Your task to perform on an android device: Open Google Maps and go to "Timeline" Image 0: 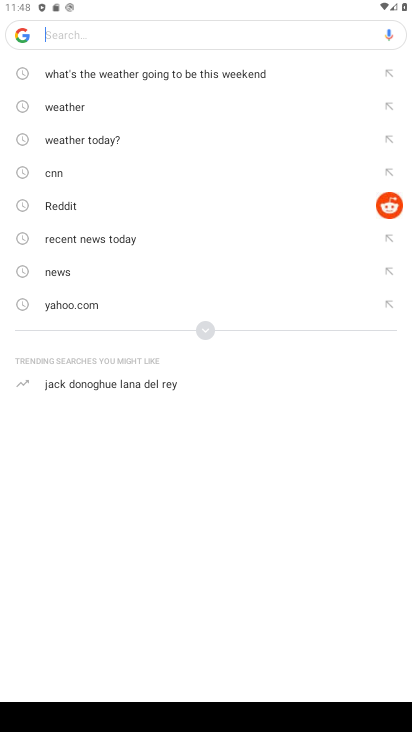
Step 0: press home button
Your task to perform on an android device: Open Google Maps and go to "Timeline" Image 1: 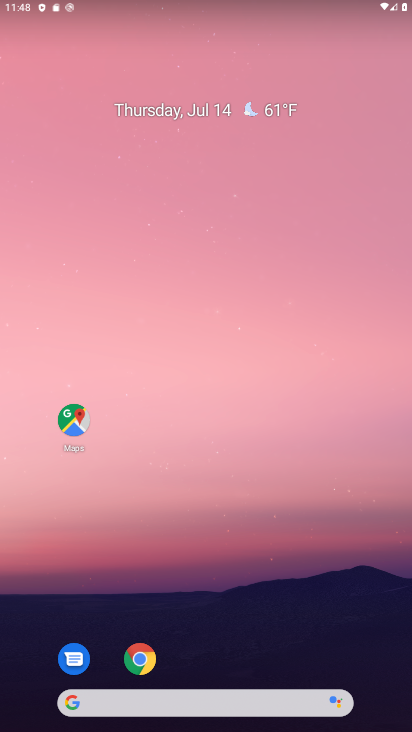
Step 1: click (66, 424)
Your task to perform on an android device: Open Google Maps and go to "Timeline" Image 2: 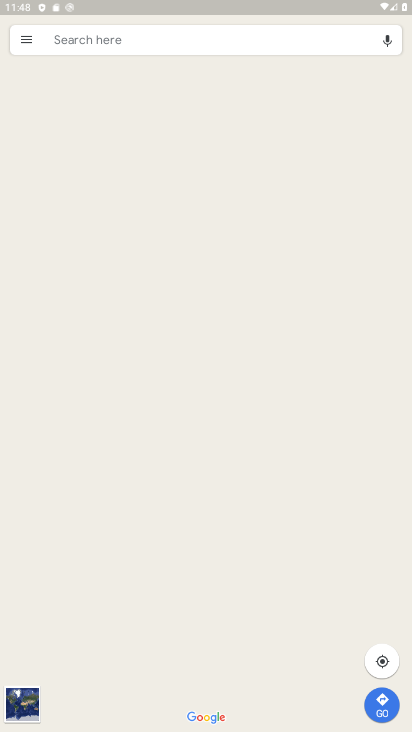
Step 2: click (34, 43)
Your task to perform on an android device: Open Google Maps and go to "Timeline" Image 3: 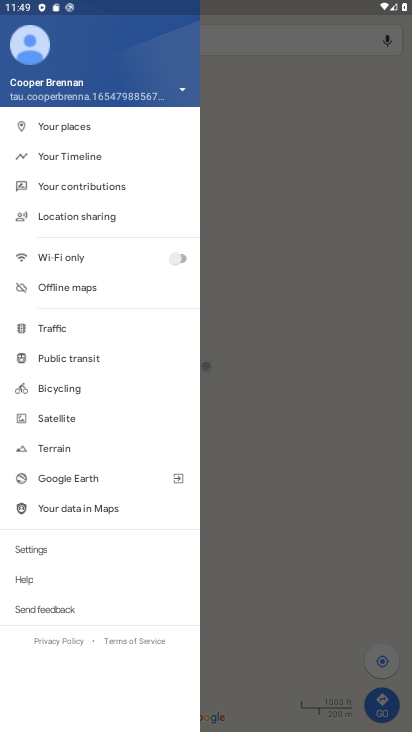
Step 3: click (78, 149)
Your task to perform on an android device: Open Google Maps and go to "Timeline" Image 4: 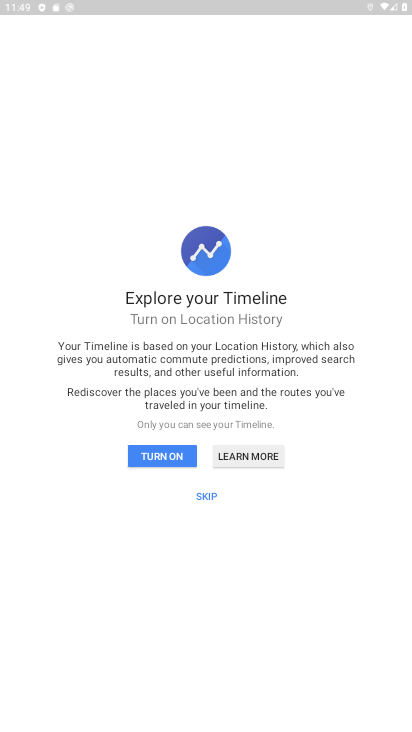
Step 4: click (209, 493)
Your task to perform on an android device: Open Google Maps and go to "Timeline" Image 5: 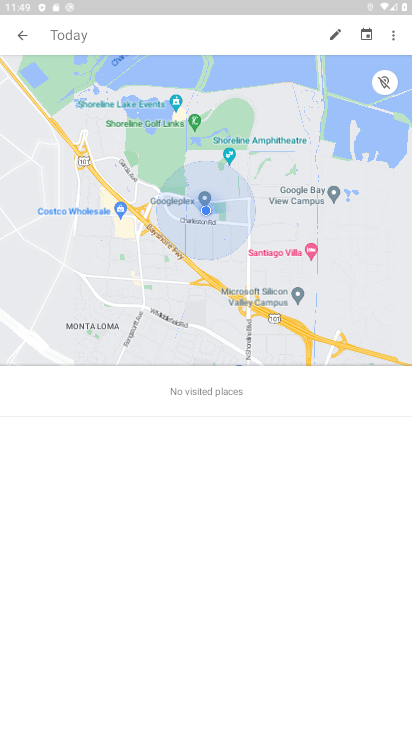
Step 5: task complete